Your task to perform on an android device: see creations saved in the google photos Image 0: 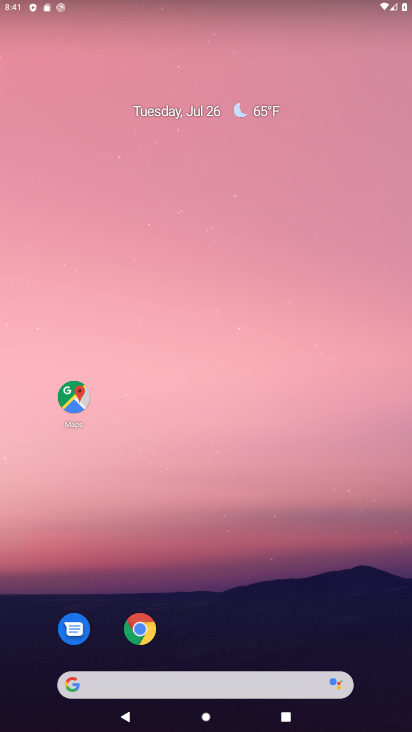
Step 0: drag from (309, 592) to (288, 137)
Your task to perform on an android device: see creations saved in the google photos Image 1: 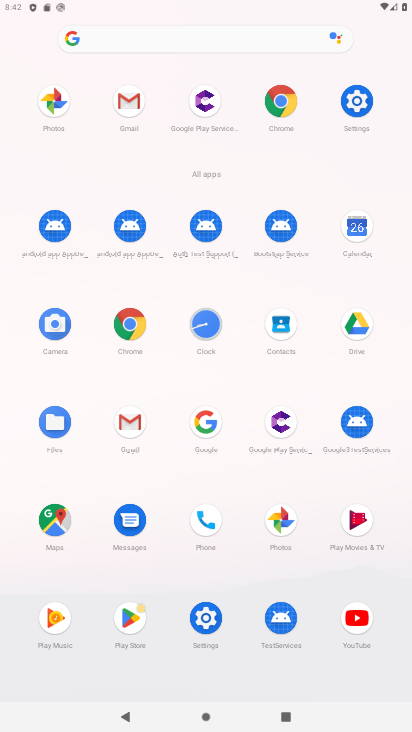
Step 1: click (286, 517)
Your task to perform on an android device: see creations saved in the google photos Image 2: 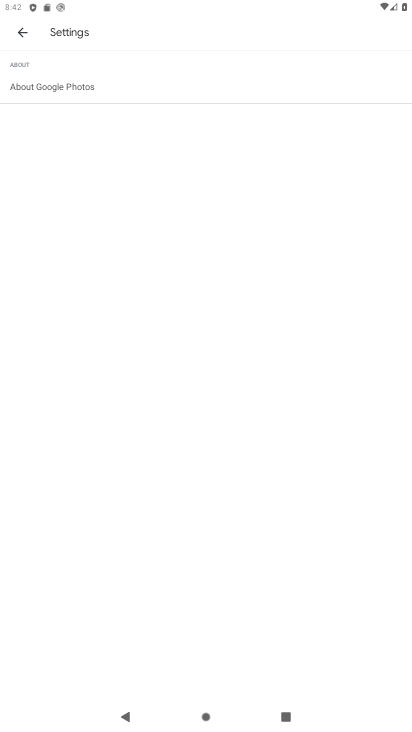
Step 2: click (22, 15)
Your task to perform on an android device: see creations saved in the google photos Image 3: 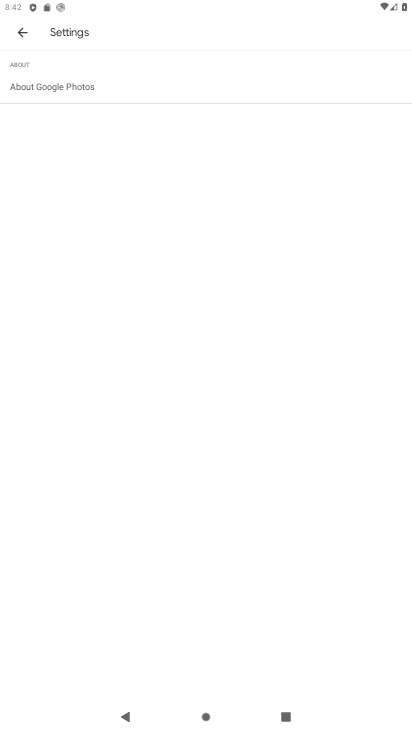
Step 3: click (21, 24)
Your task to perform on an android device: see creations saved in the google photos Image 4: 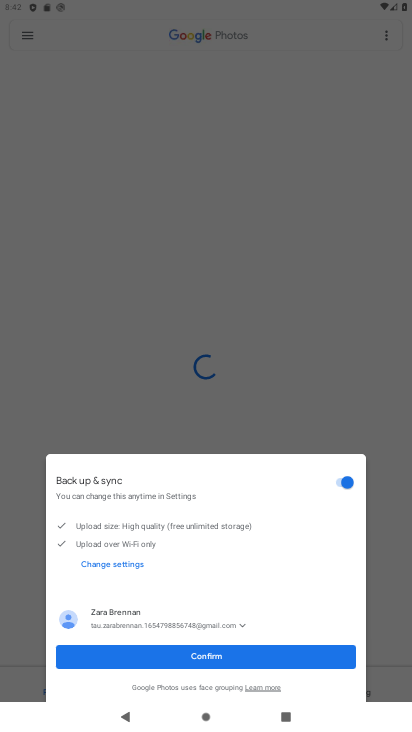
Step 4: click (235, 650)
Your task to perform on an android device: see creations saved in the google photos Image 5: 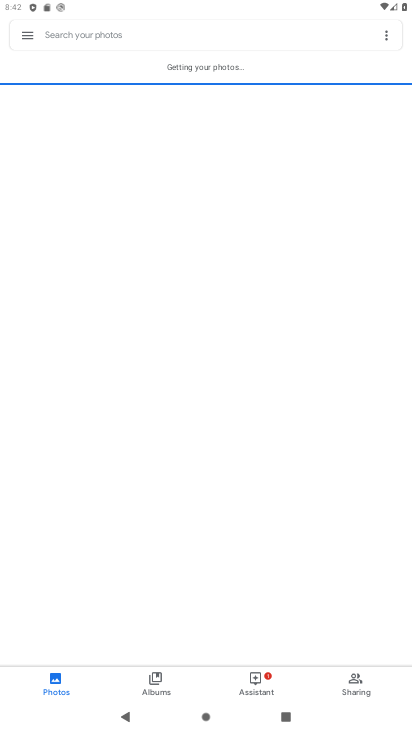
Step 5: click (275, 682)
Your task to perform on an android device: see creations saved in the google photos Image 6: 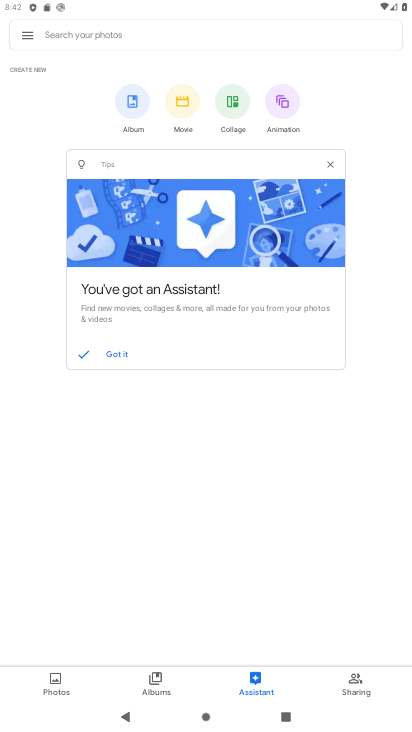
Step 6: click (364, 679)
Your task to perform on an android device: see creations saved in the google photos Image 7: 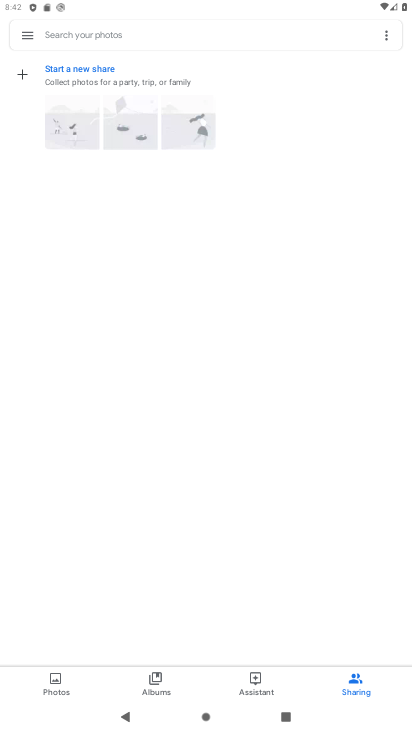
Step 7: click (171, 681)
Your task to perform on an android device: see creations saved in the google photos Image 8: 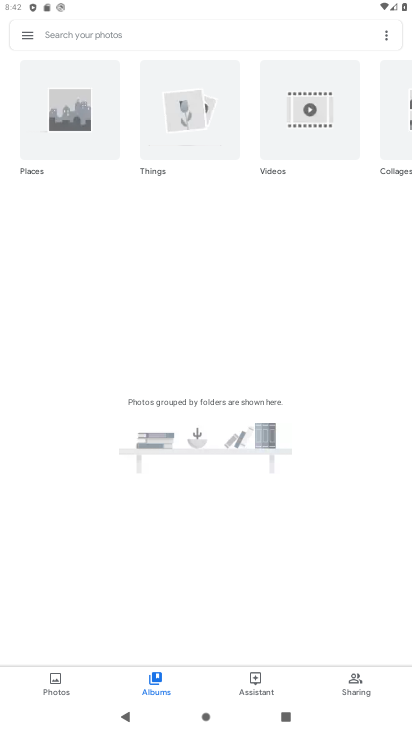
Step 8: task complete